Your task to perform on an android device: Open display settings Image 0: 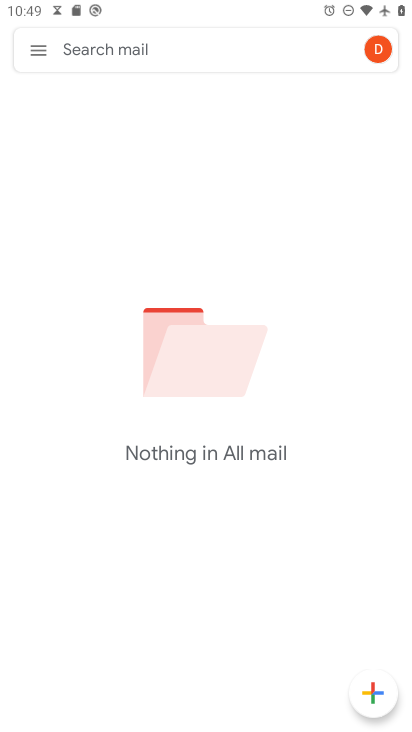
Step 0: press home button
Your task to perform on an android device: Open display settings Image 1: 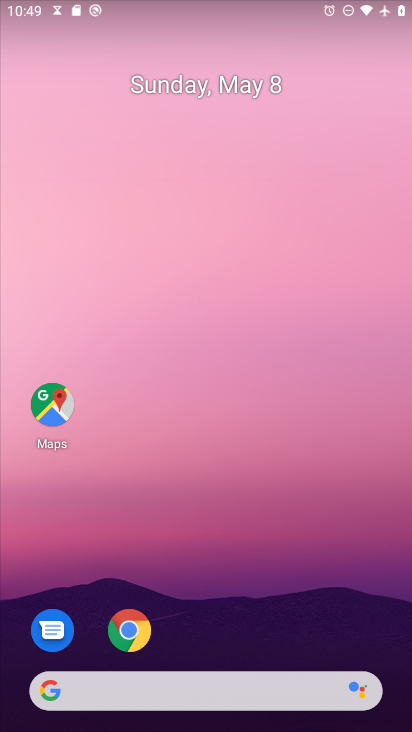
Step 1: drag from (185, 690) to (308, 319)
Your task to perform on an android device: Open display settings Image 2: 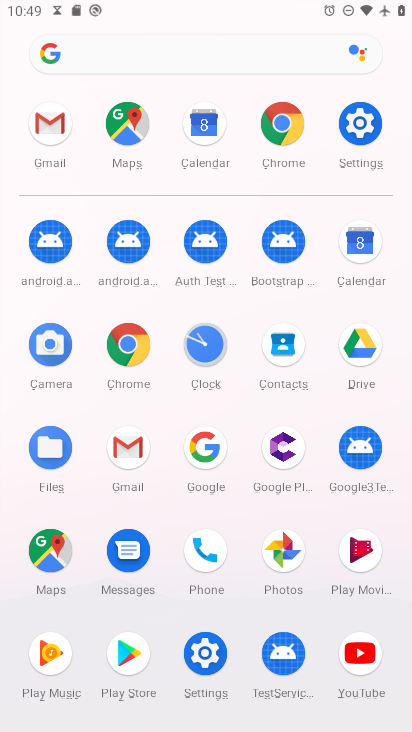
Step 2: click (346, 135)
Your task to perform on an android device: Open display settings Image 3: 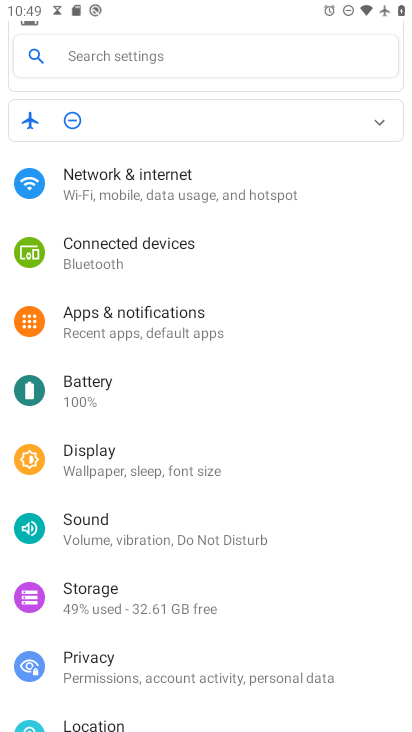
Step 3: click (91, 450)
Your task to perform on an android device: Open display settings Image 4: 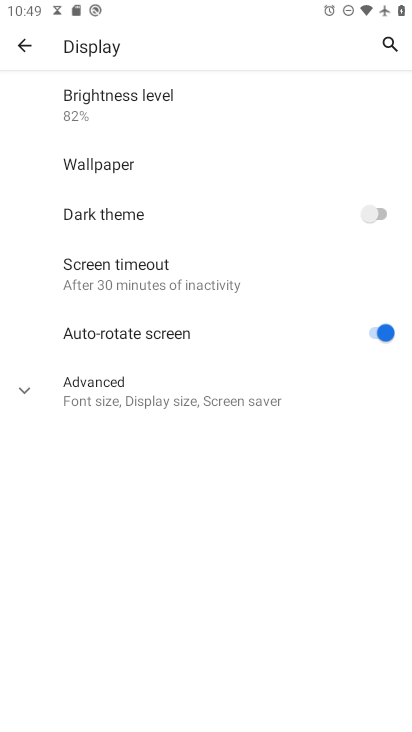
Step 4: task complete